Your task to perform on an android device: Go to notification settings Image 0: 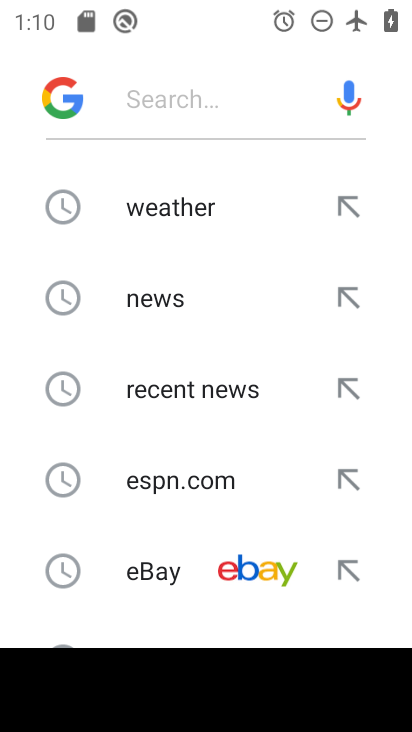
Step 0: press back button
Your task to perform on an android device: Go to notification settings Image 1: 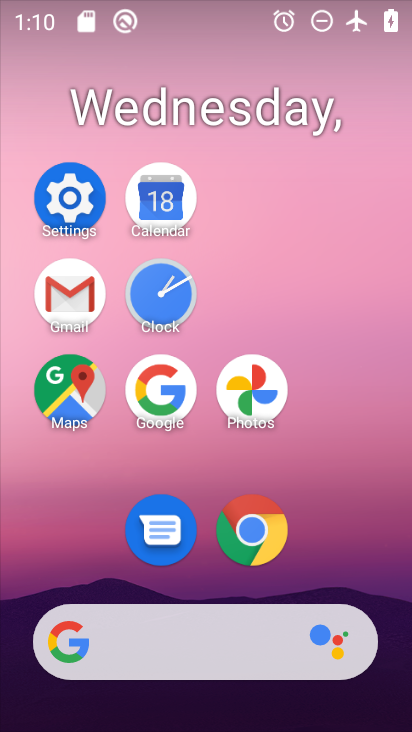
Step 1: click (84, 194)
Your task to perform on an android device: Go to notification settings Image 2: 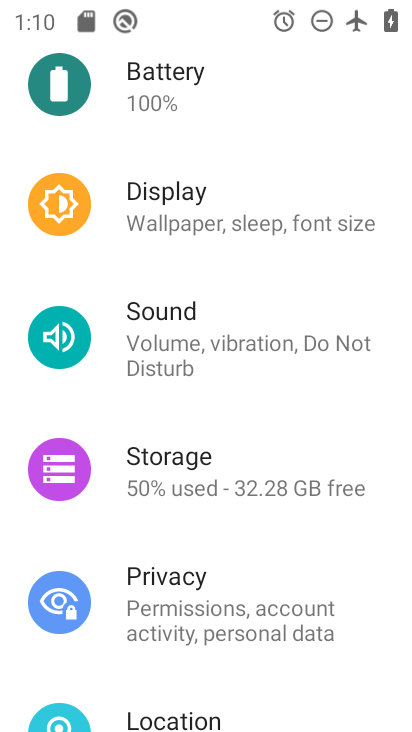
Step 2: drag from (305, 154) to (286, 586)
Your task to perform on an android device: Go to notification settings Image 3: 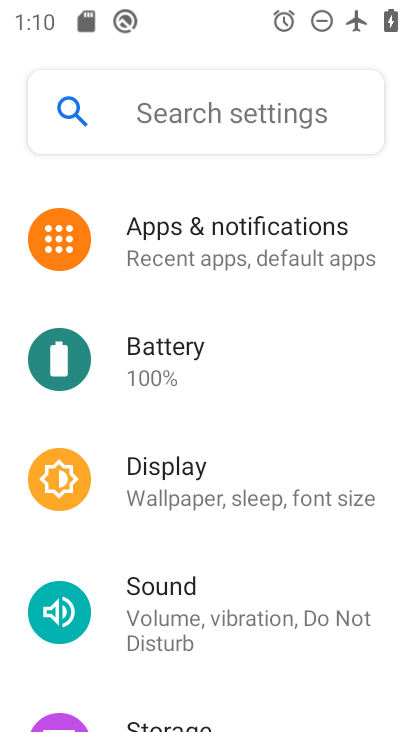
Step 3: drag from (309, 338) to (290, 623)
Your task to perform on an android device: Go to notification settings Image 4: 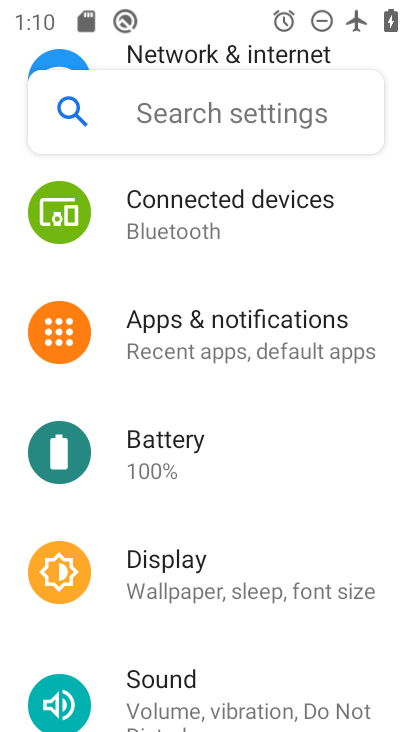
Step 4: click (262, 339)
Your task to perform on an android device: Go to notification settings Image 5: 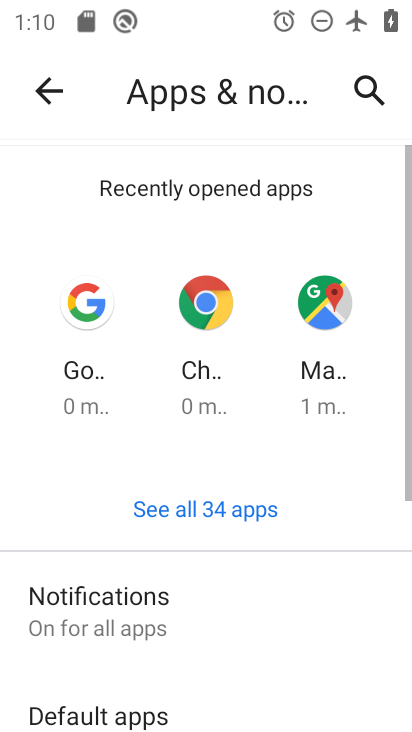
Step 5: task complete